Your task to perform on an android device: toggle data saver in the chrome app Image 0: 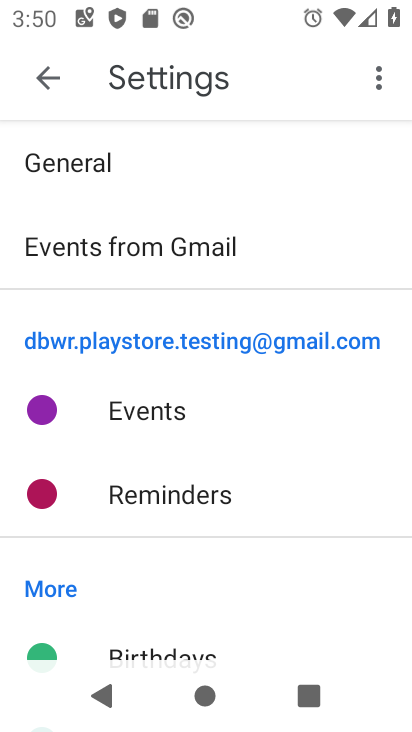
Step 0: press home button
Your task to perform on an android device: toggle data saver in the chrome app Image 1: 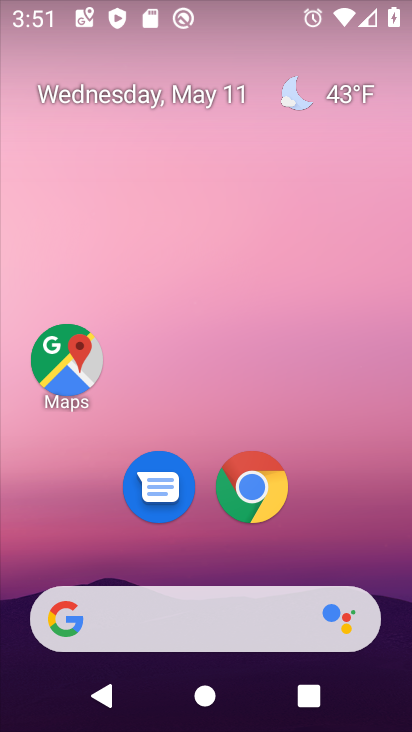
Step 1: drag from (318, 559) to (300, 208)
Your task to perform on an android device: toggle data saver in the chrome app Image 2: 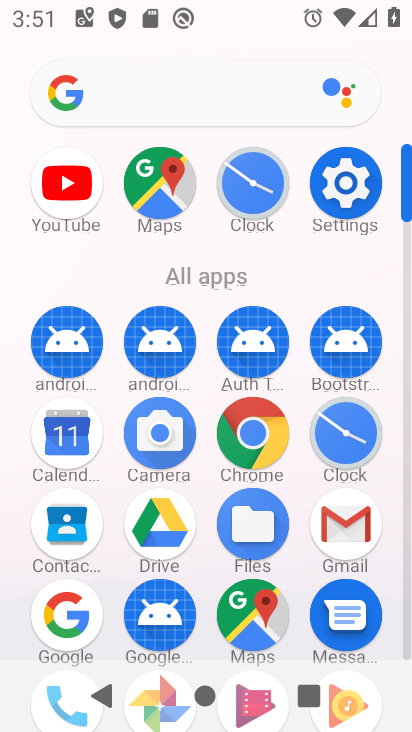
Step 2: click (258, 461)
Your task to perform on an android device: toggle data saver in the chrome app Image 3: 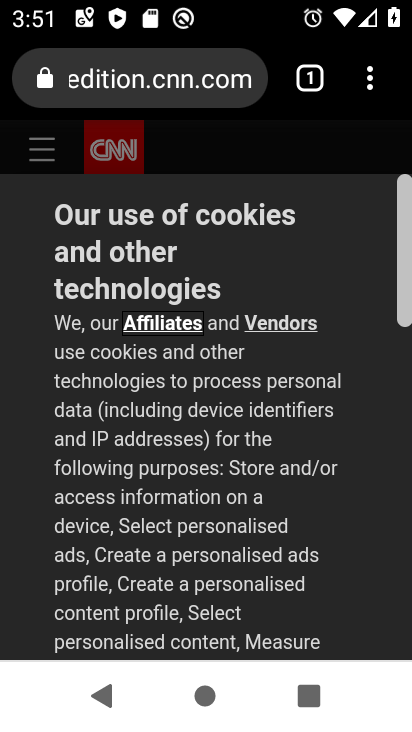
Step 3: click (370, 80)
Your task to perform on an android device: toggle data saver in the chrome app Image 4: 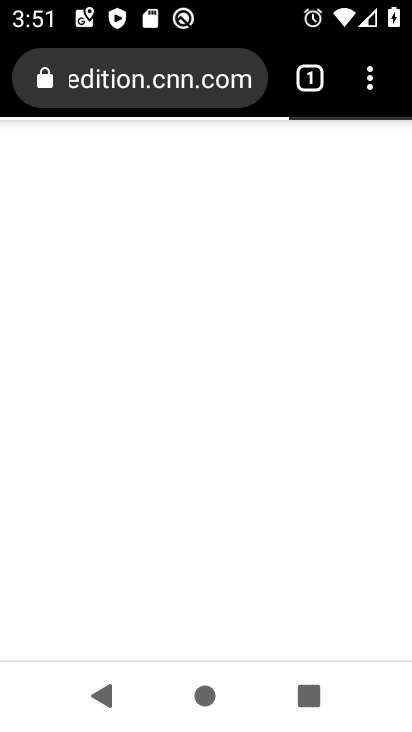
Step 4: click (366, 86)
Your task to perform on an android device: toggle data saver in the chrome app Image 5: 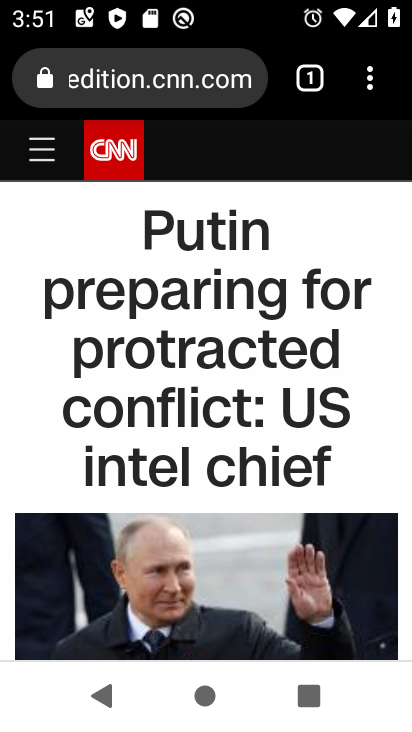
Step 5: click (372, 83)
Your task to perform on an android device: toggle data saver in the chrome app Image 6: 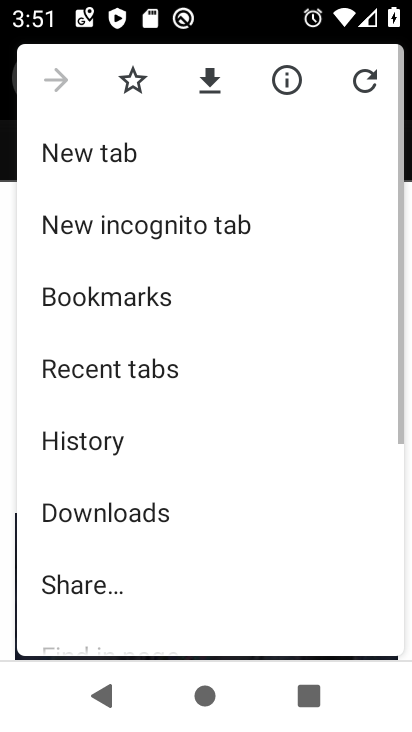
Step 6: drag from (195, 551) to (216, 193)
Your task to perform on an android device: toggle data saver in the chrome app Image 7: 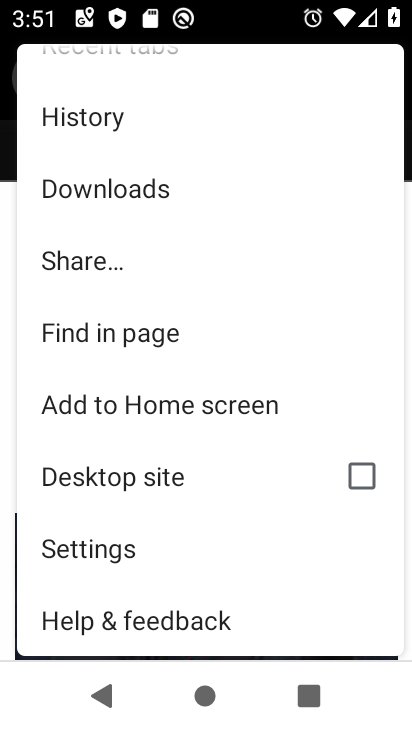
Step 7: click (123, 558)
Your task to perform on an android device: toggle data saver in the chrome app Image 8: 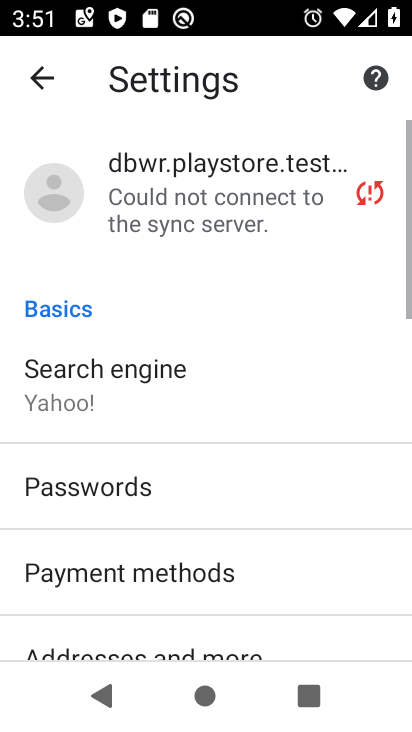
Step 8: drag from (188, 607) to (238, 185)
Your task to perform on an android device: toggle data saver in the chrome app Image 9: 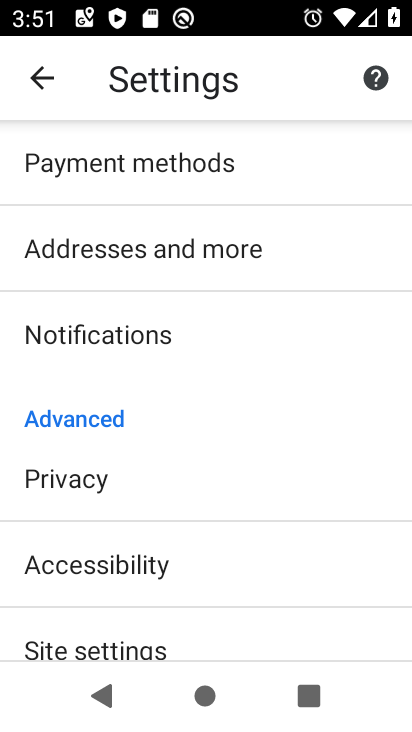
Step 9: drag from (196, 600) to (184, 266)
Your task to perform on an android device: toggle data saver in the chrome app Image 10: 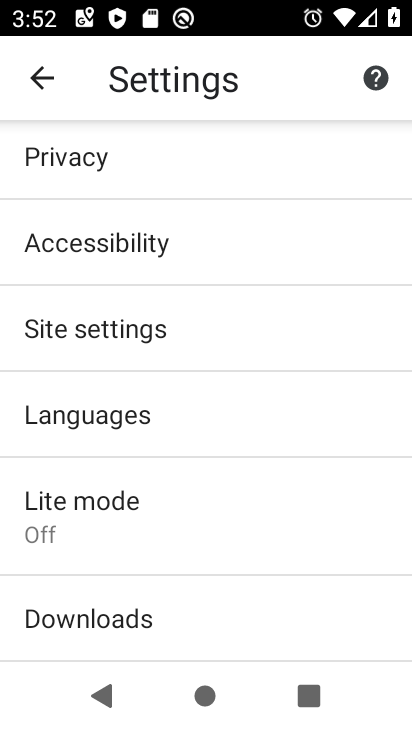
Step 10: click (95, 518)
Your task to perform on an android device: toggle data saver in the chrome app Image 11: 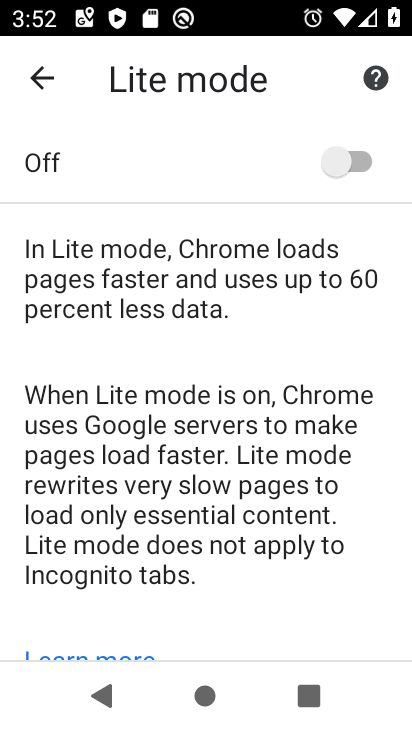
Step 11: click (349, 146)
Your task to perform on an android device: toggle data saver in the chrome app Image 12: 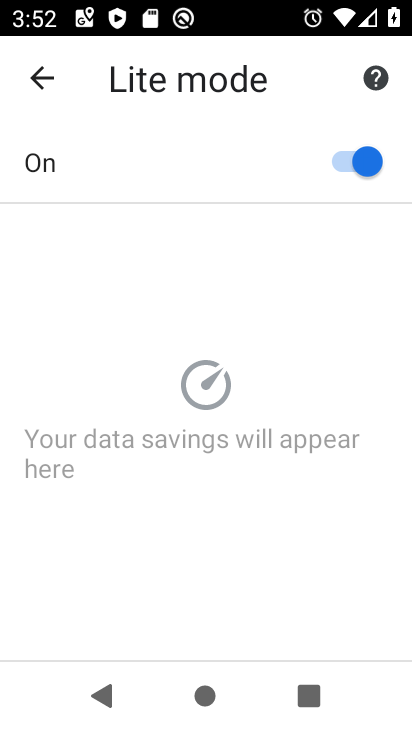
Step 12: task complete